Your task to perform on an android device: What's on my calendar today? Image 0: 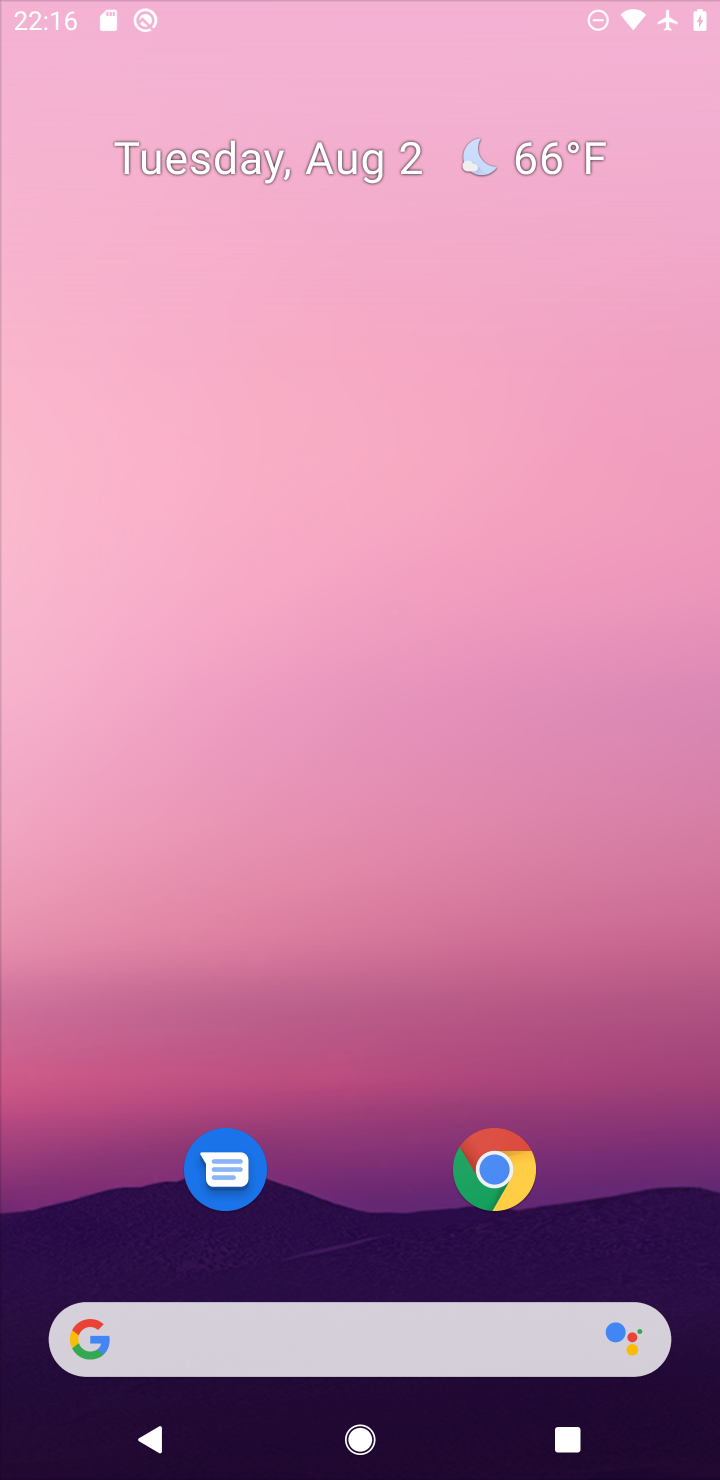
Step 0: click (296, 795)
Your task to perform on an android device: What's on my calendar today? Image 1: 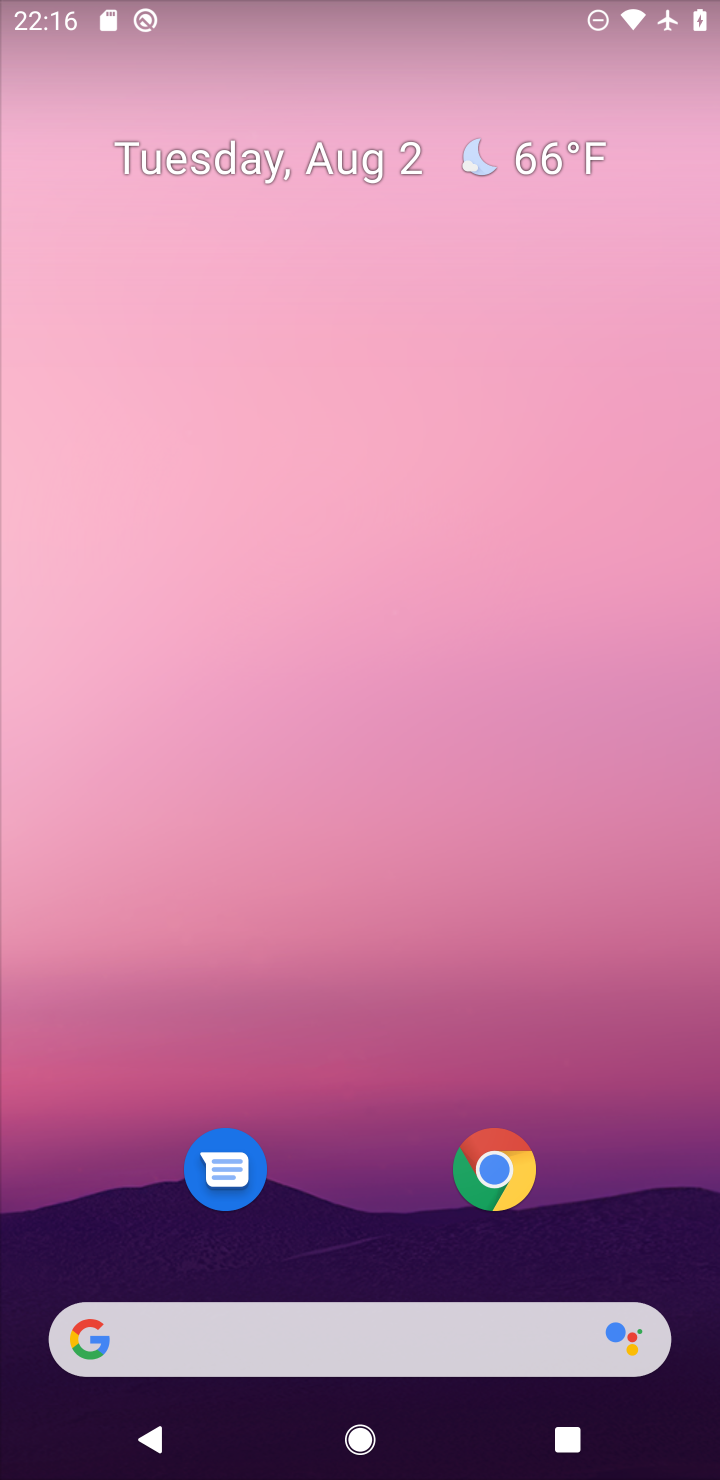
Step 1: drag from (399, 917) to (379, 340)
Your task to perform on an android device: What's on my calendar today? Image 2: 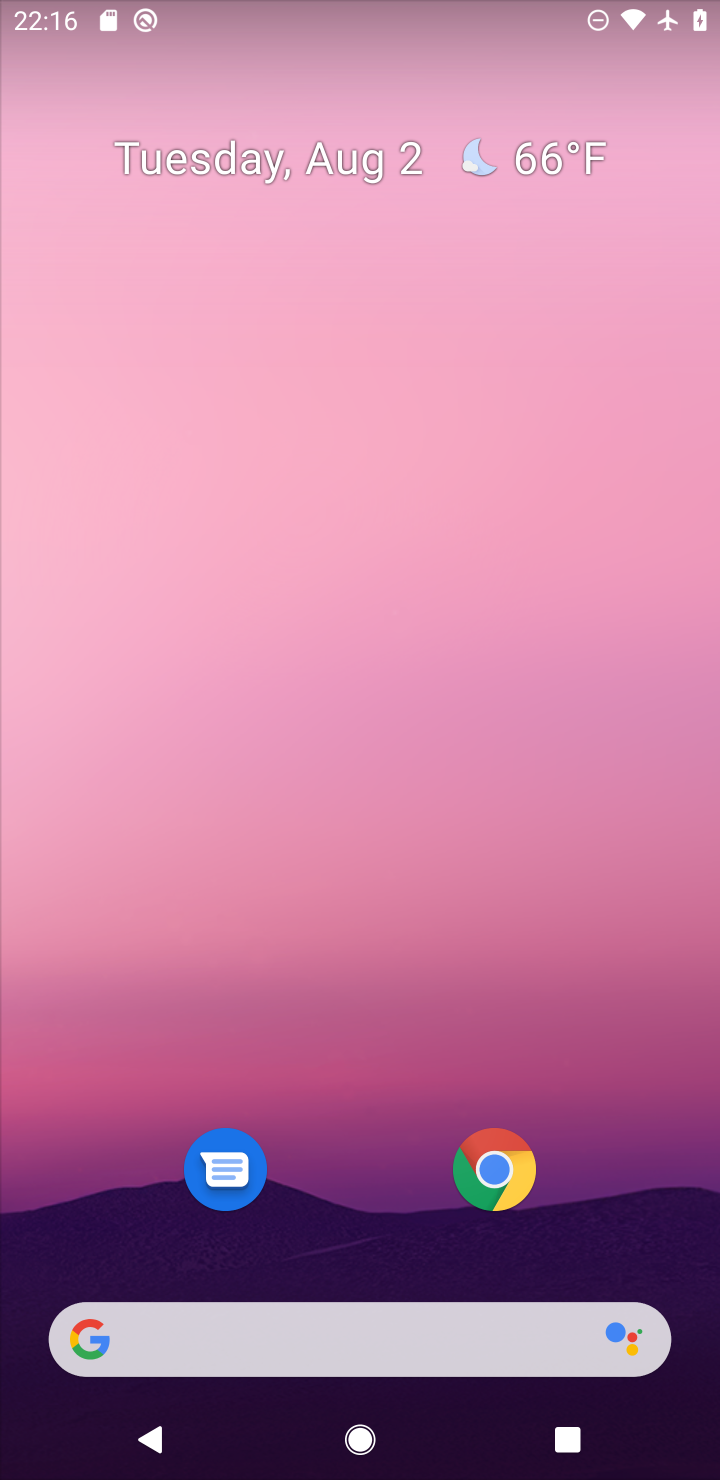
Step 2: drag from (337, 888) to (278, 2)
Your task to perform on an android device: What's on my calendar today? Image 3: 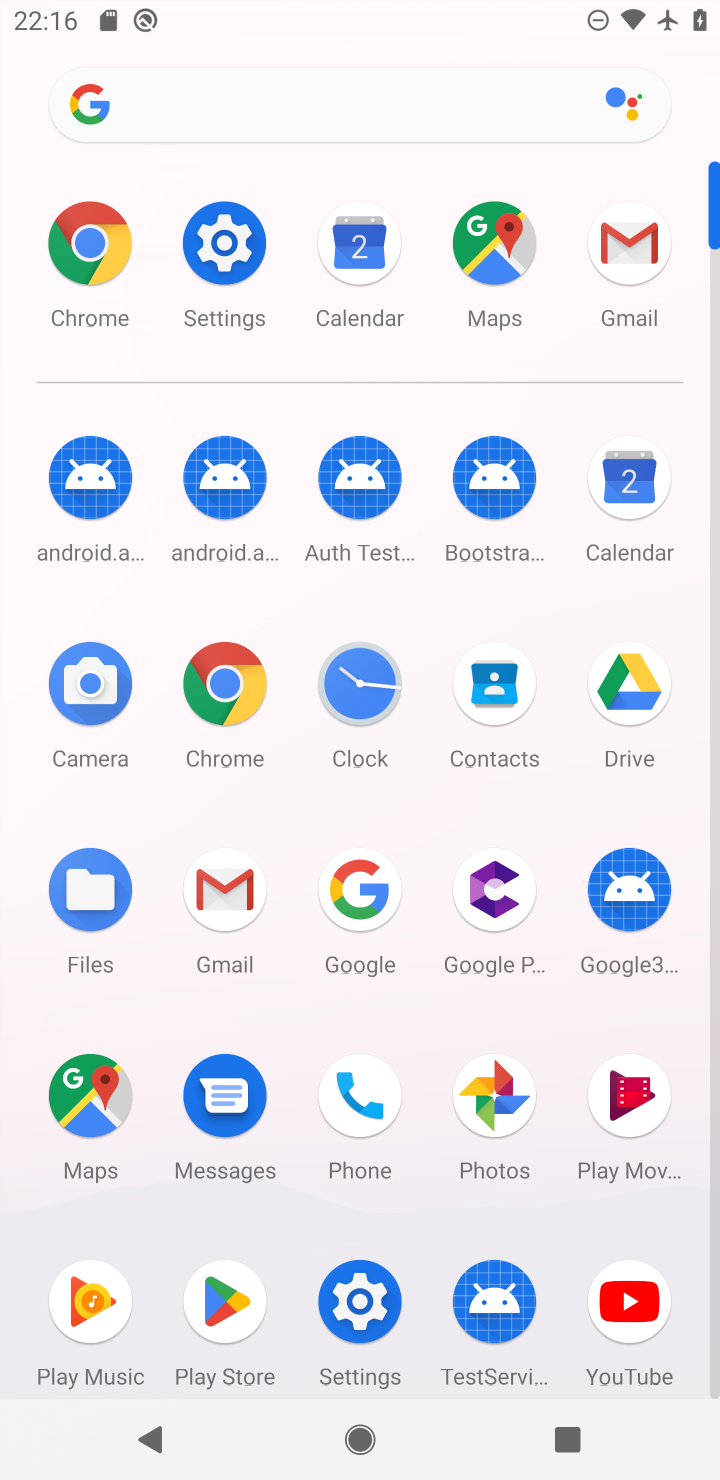
Step 3: click (626, 487)
Your task to perform on an android device: What's on my calendar today? Image 4: 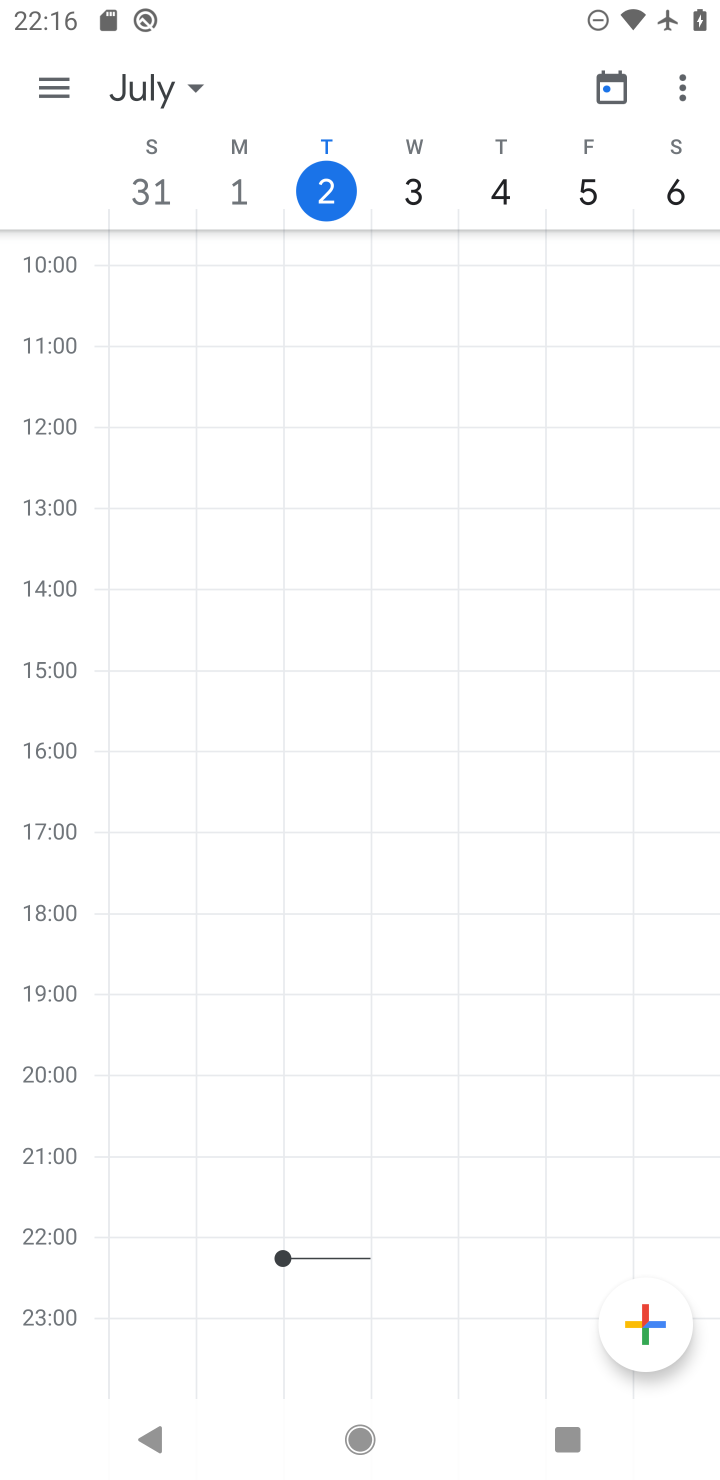
Step 4: click (50, 84)
Your task to perform on an android device: What's on my calendar today? Image 5: 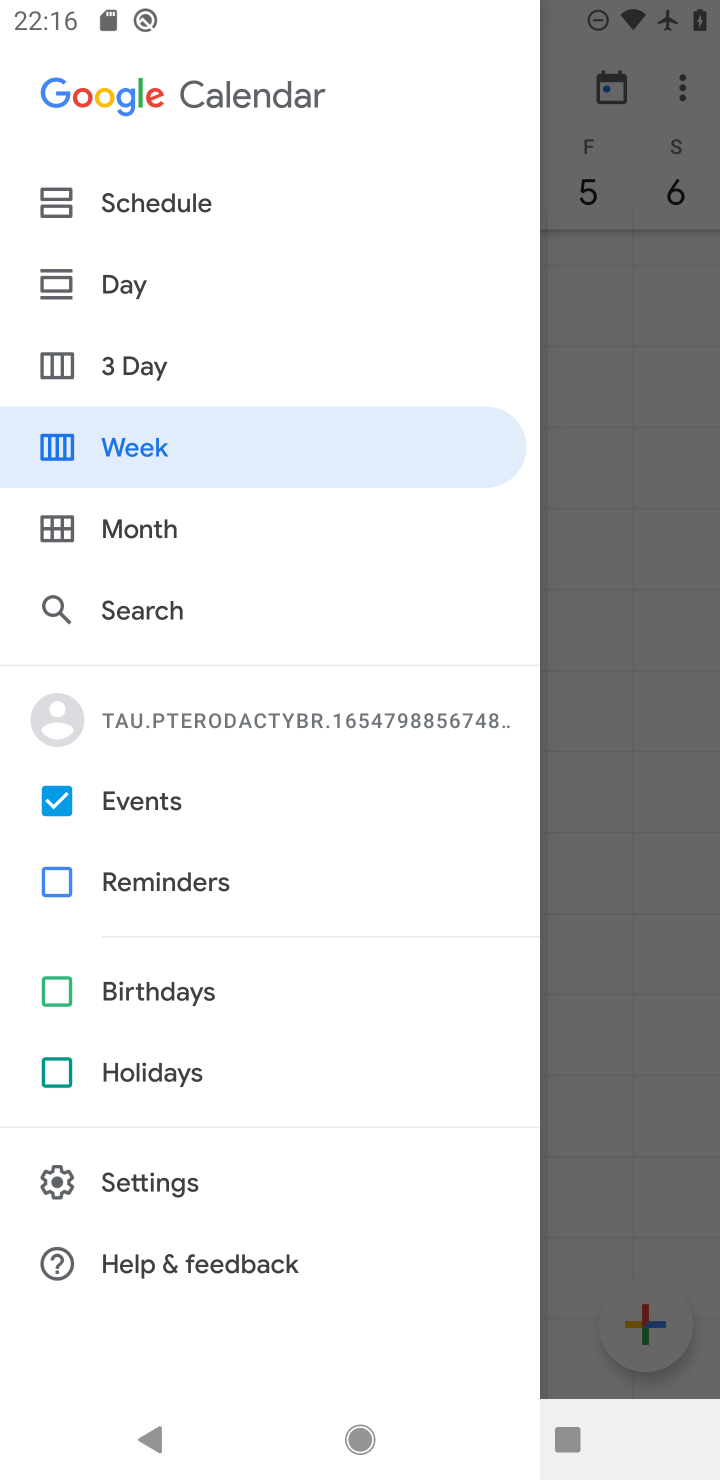
Step 5: click (133, 288)
Your task to perform on an android device: What's on my calendar today? Image 6: 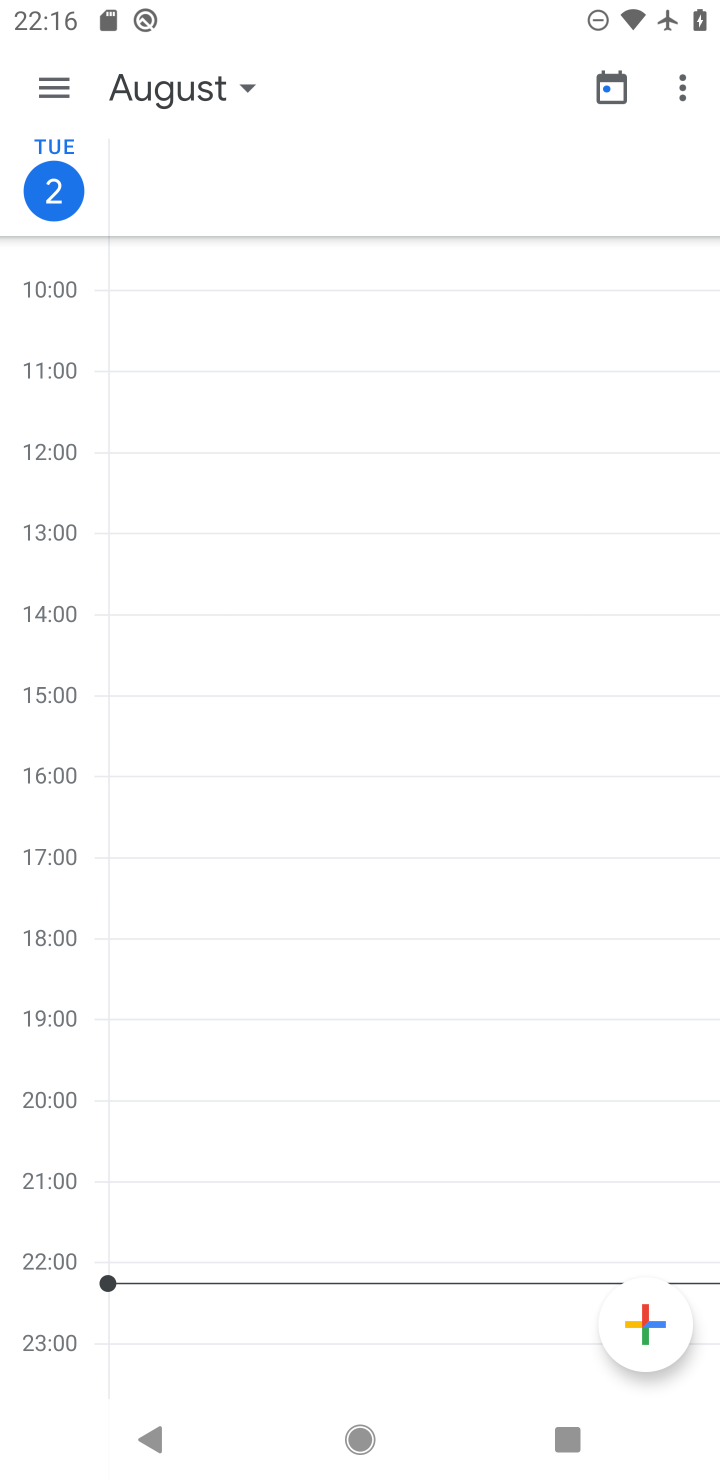
Step 6: click (61, 87)
Your task to perform on an android device: What's on my calendar today? Image 7: 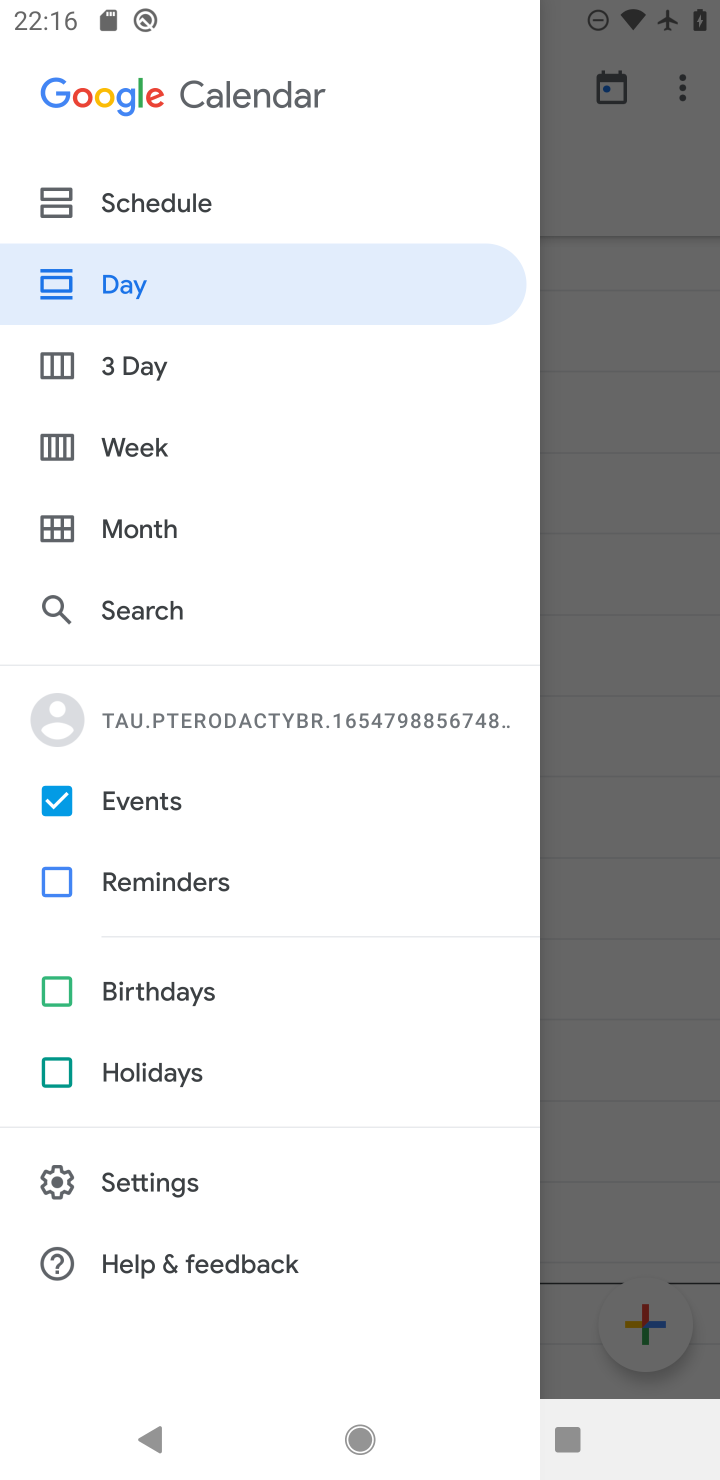
Step 7: drag from (51, 1078) to (61, 973)
Your task to perform on an android device: What's on my calendar today? Image 8: 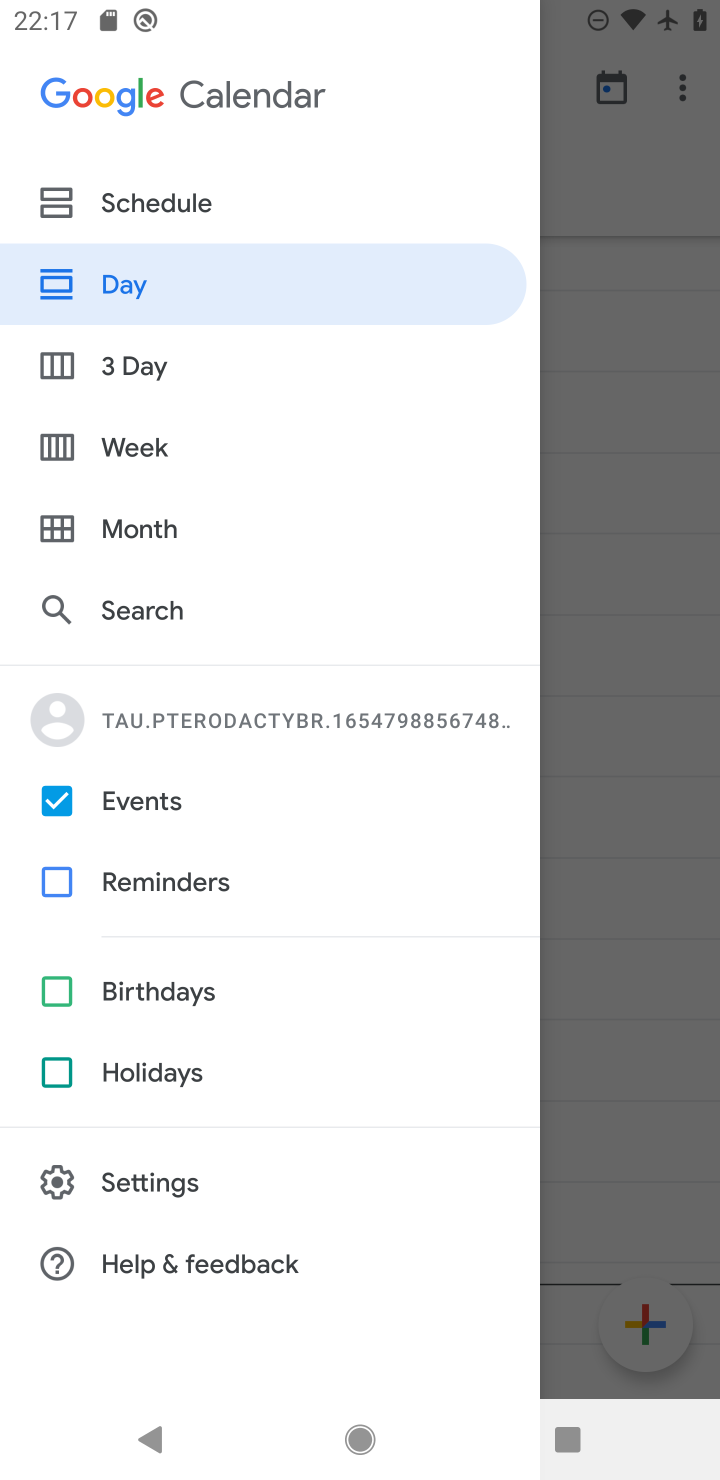
Step 8: click (54, 873)
Your task to perform on an android device: What's on my calendar today? Image 9: 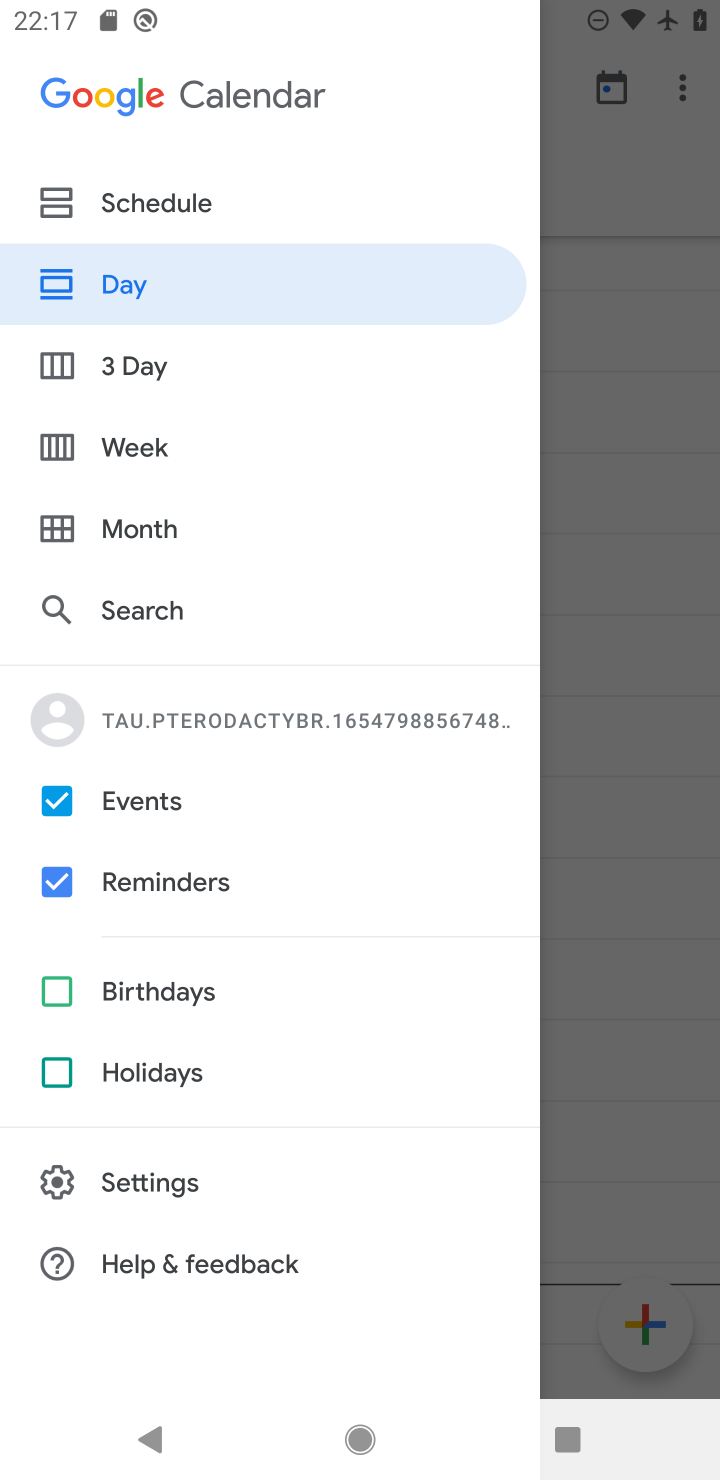
Step 9: click (60, 999)
Your task to perform on an android device: What's on my calendar today? Image 10: 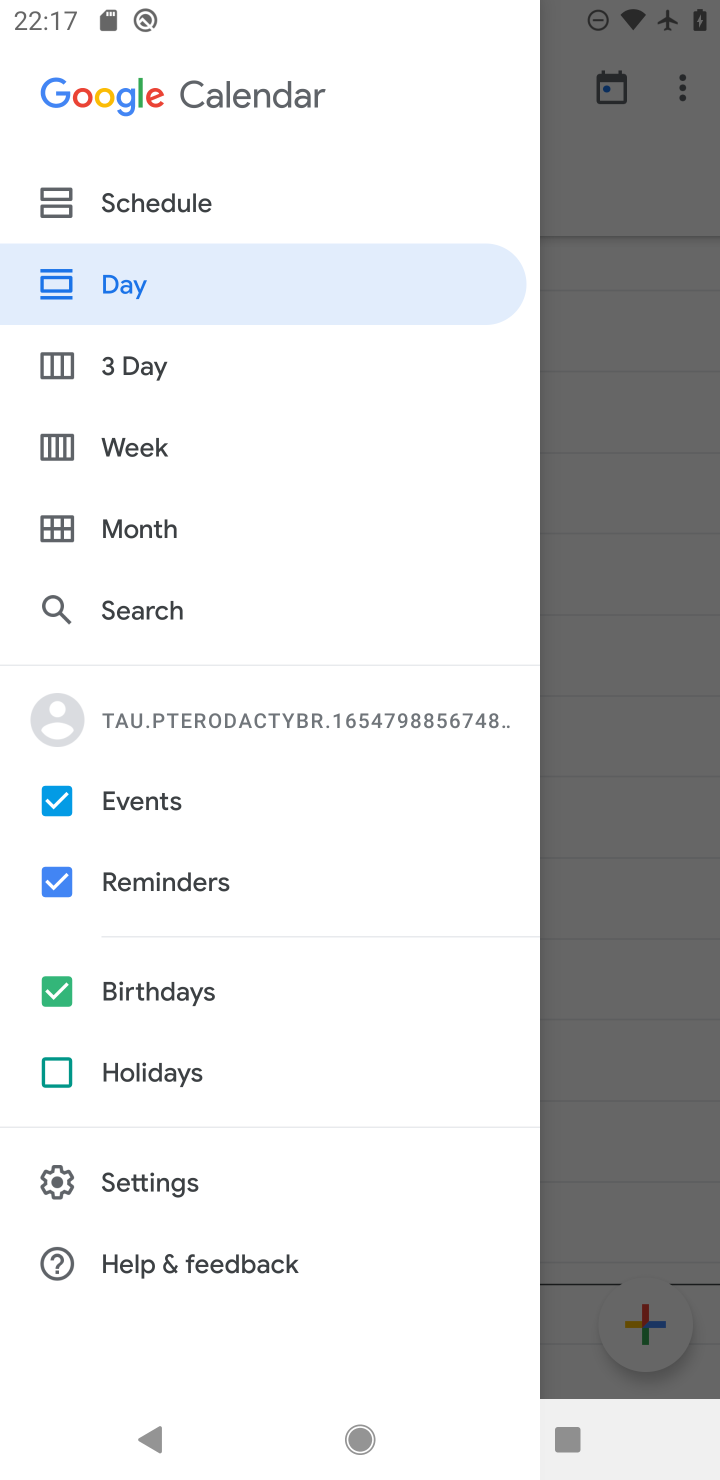
Step 10: click (54, 1063)
Your task to perform on an android device: What's on my calendar today? Image 11: 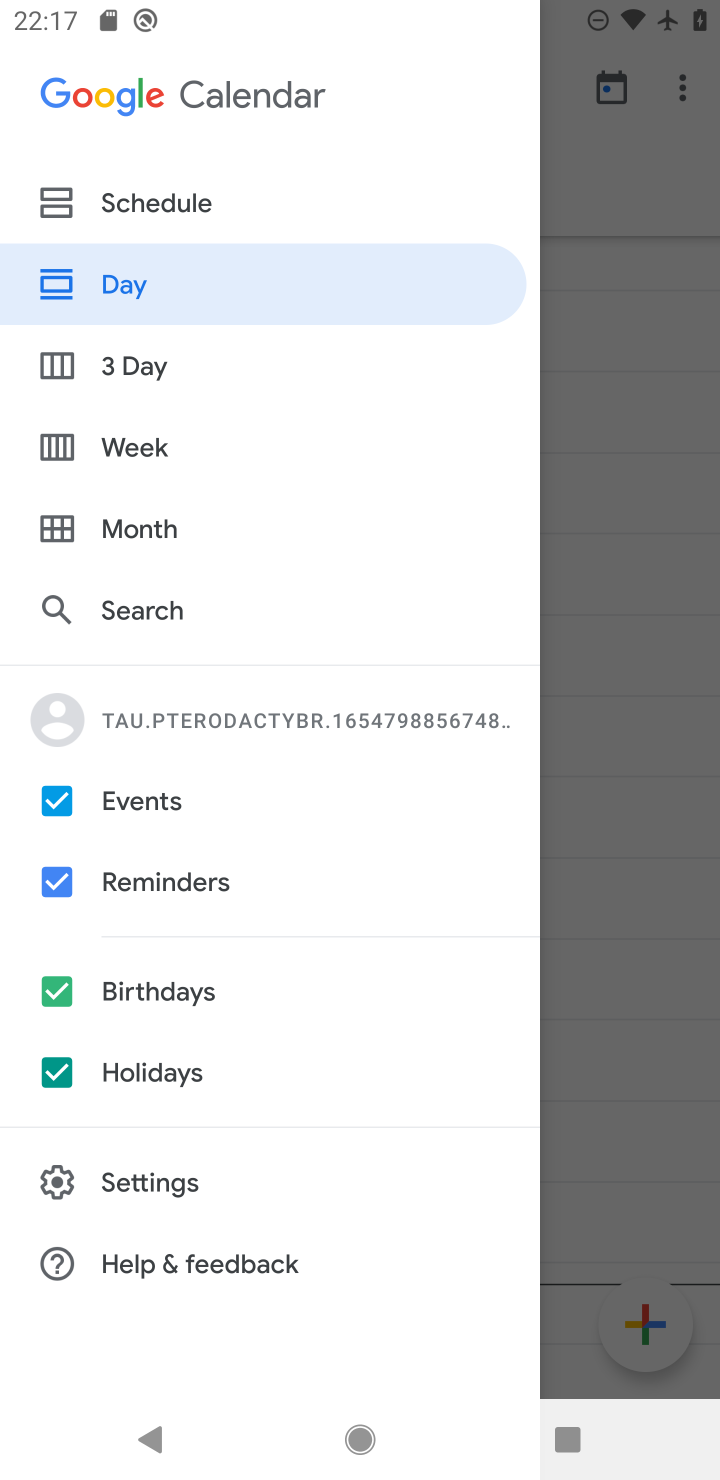
Step 11: click (414, 280)
Your task to perform on an android device: What's on my calendar today? Image 12: 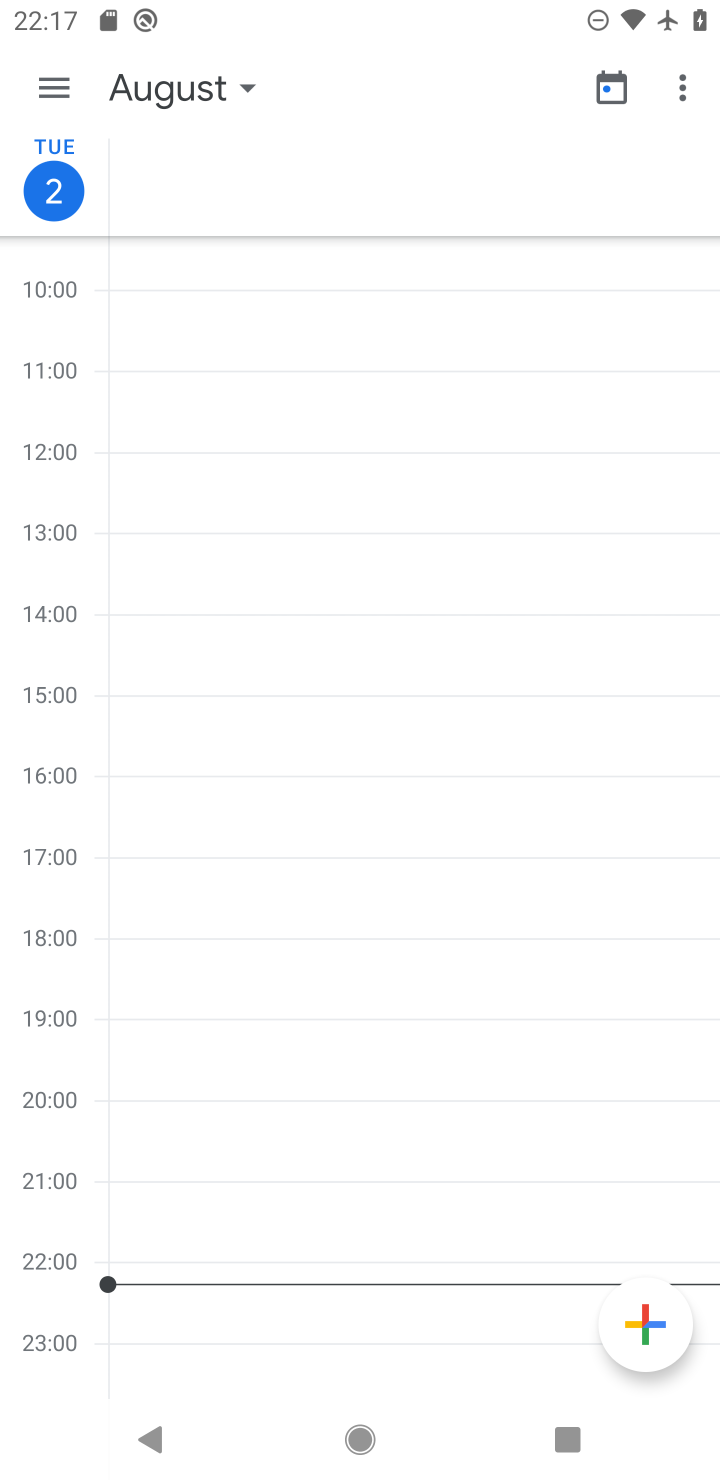
Step 12: task complete